Your task to perform on an android device: turn on wifi Image 0: 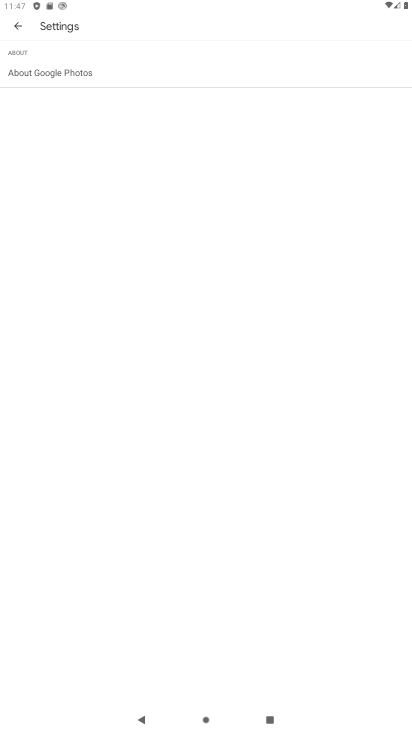
Step 0: press home button
Your task to perform on an android device: turn on wifi Image 1: 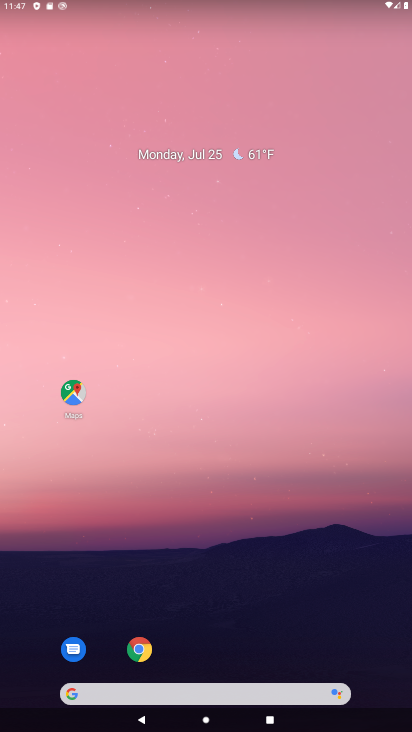
Step 1: drag from (198, 672) to (162, 60)
Your task to perform on an android device: turn on wifi Image 2: 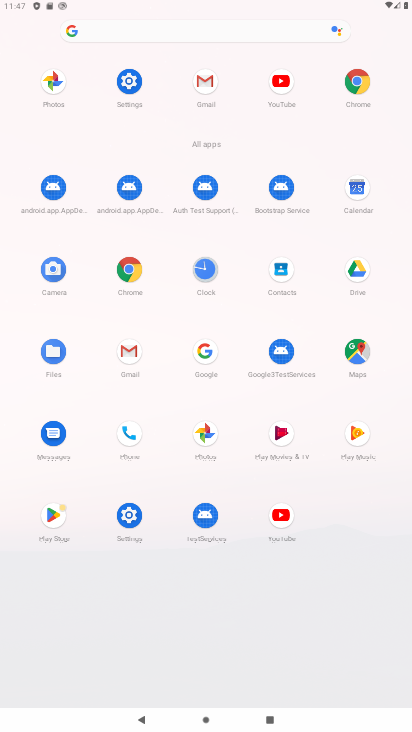
Step 2: click (136, 79)
Your task to perform on an android device: turn on wifi Image 3: 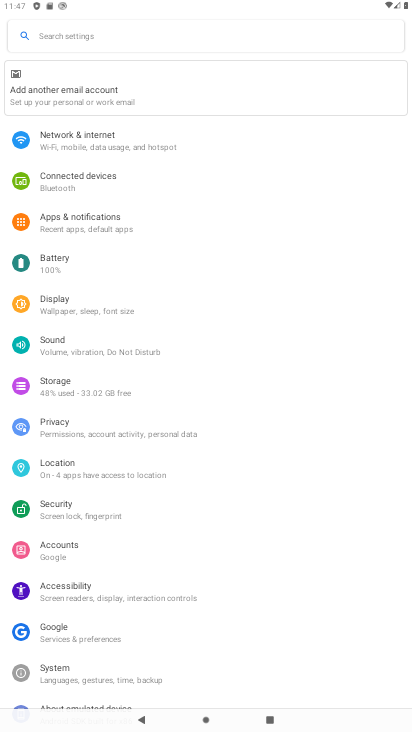
Step 3: click (109, 151)
Your task to perform on an android device: turn on wifi Image 4: 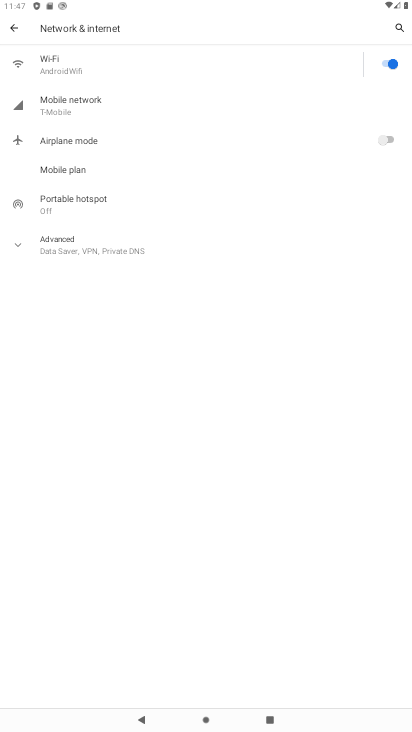
Step 4: click (70, 66)
Your task to perform on an android device: turn on wifi Image 5: 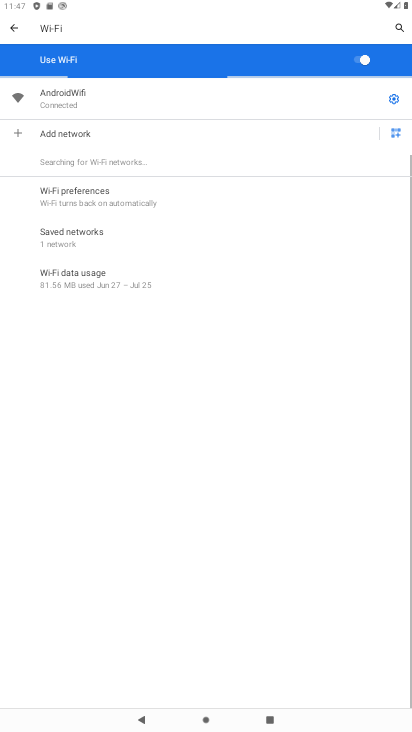
Step 5: click (70, 65)
Your task to perform on an android device: turn on wifi Image 6: 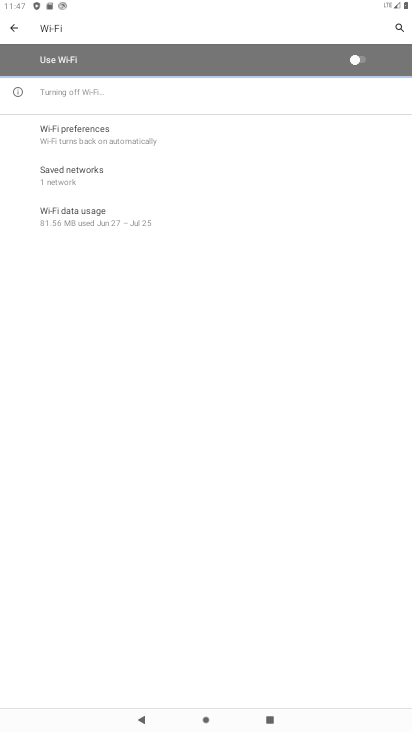
Step 6: click (70, 65)
Your task to perform on an android device: turn on wifi Image 7: 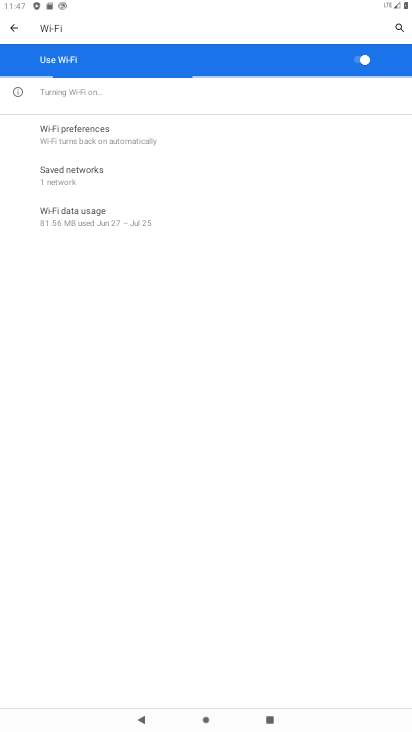
Step 7: task complete